Your task to perform on an android device: Turn off the flashlight Image 0: 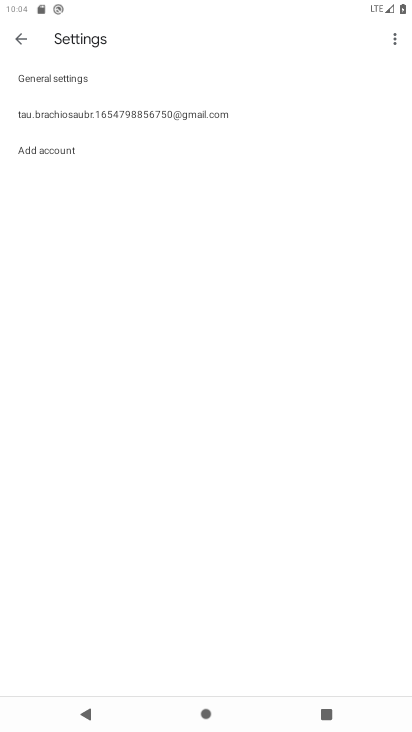
Step 0: press home button
Your task to perform on an android device: Turn off the flashlight Image 1: 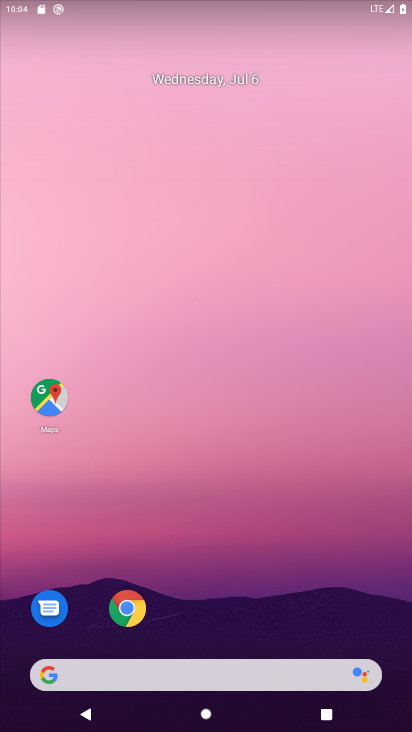
Step 1: drag from (201, 563) to (244, 64)
Your task to perform on an android device: Turn off the flashlight Image 2: 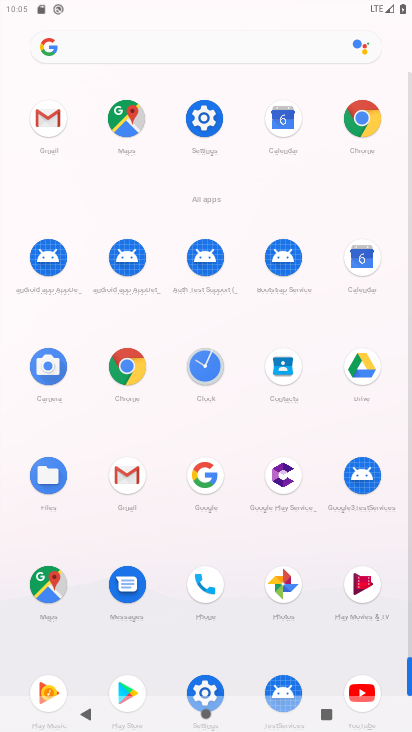
Step 2: drag from (169, 597) to (190, 425)
Your task to perform on an android device: Turn off the flashlight Image 3: 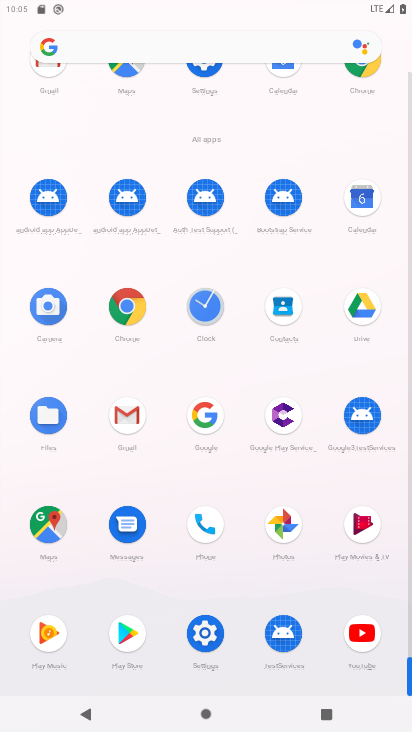
Step 3: click (207, 673)
Your task to perform on an android device: Turn off the flashlight Image 4: 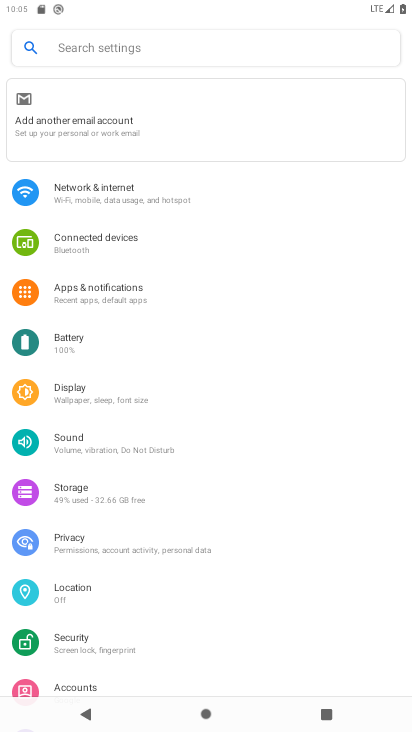
Step 4: click (179, 43)
Your task to perform on an android device: Turn off the flashlight Image 5: 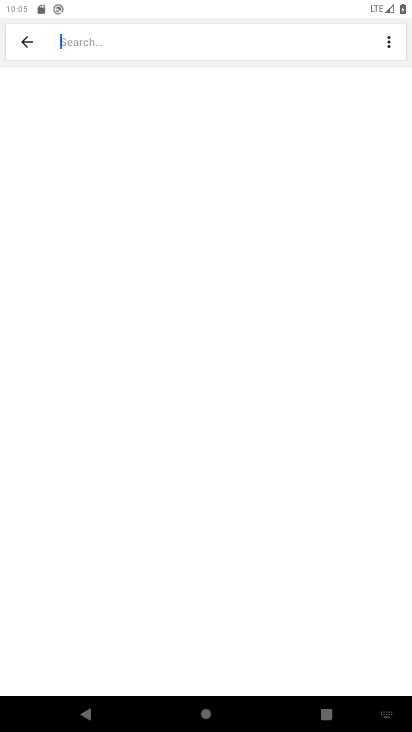
Step 5: type "flashlight"
Your task to perform on an android device: Turn off the flashlight Image 6: 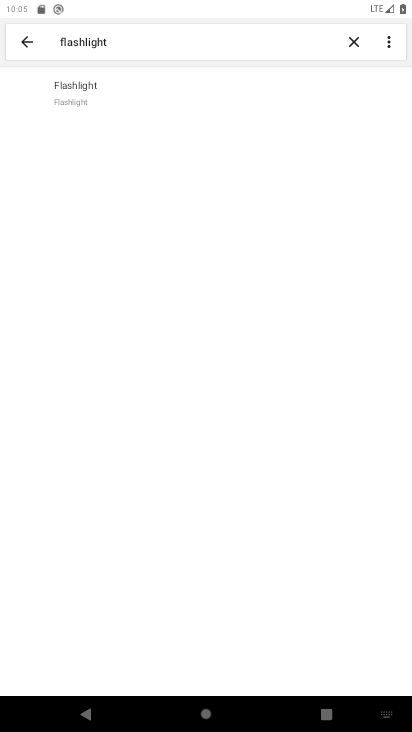
Step 6: task complete